Your task to perform on an android device: Open Android settings Image 0: 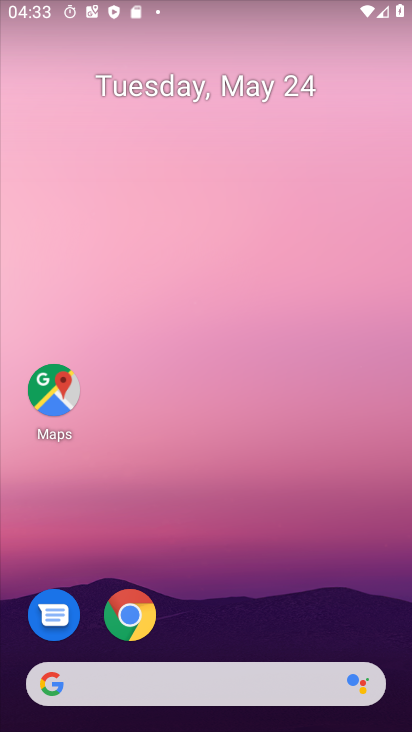
Step 0: drag from (247, 574) to (248, 128)
Your task to perform on an android device: Open Android settings Image 1: 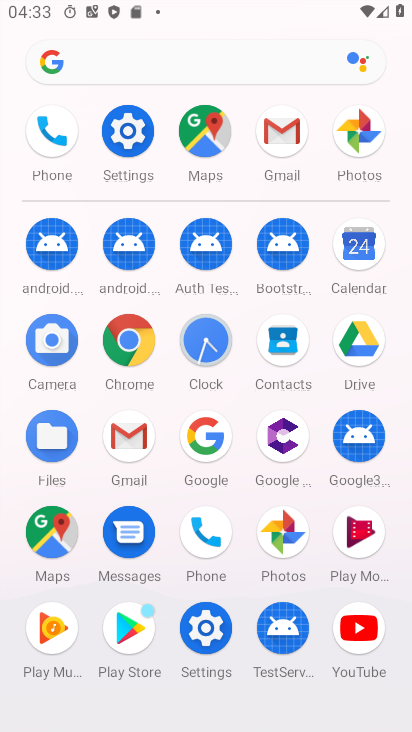
Step 1: click (138, 123)
Your task to perform on an android device: Open Android settings Image 2: 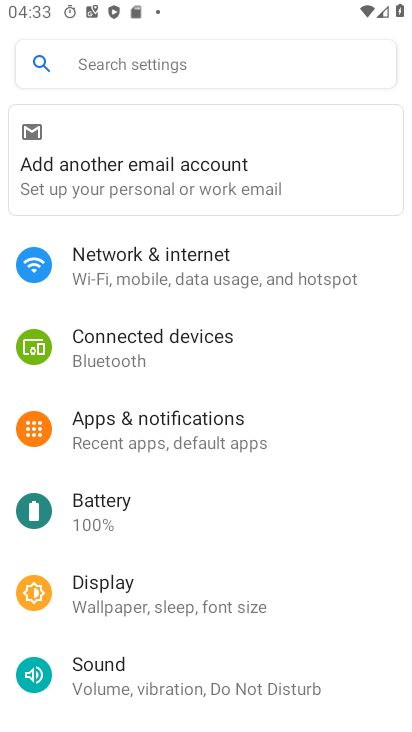
Step 2: drag from (169, 652) to (257, 150)
Your task to perform on an android device: Open Android settings Image 3: 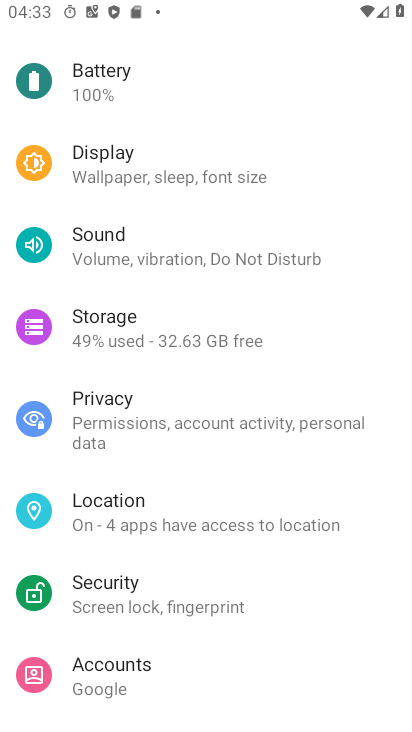
Step 3: drag from (207, 631) to (290, 74)
Your task to perform on an android device: Open Android settings Image 4: 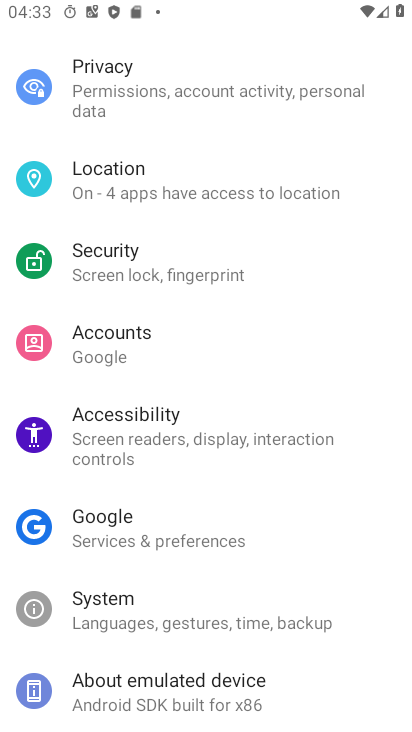
Step 4: click (112, 692)
Your task to perform on an android device: Open Android settings Image 5: 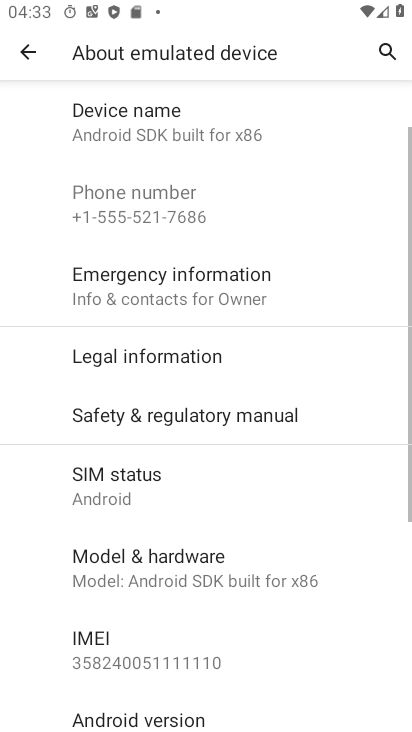
Step 5: task complete